Your task to perform on an android device: Open settings Image 0: 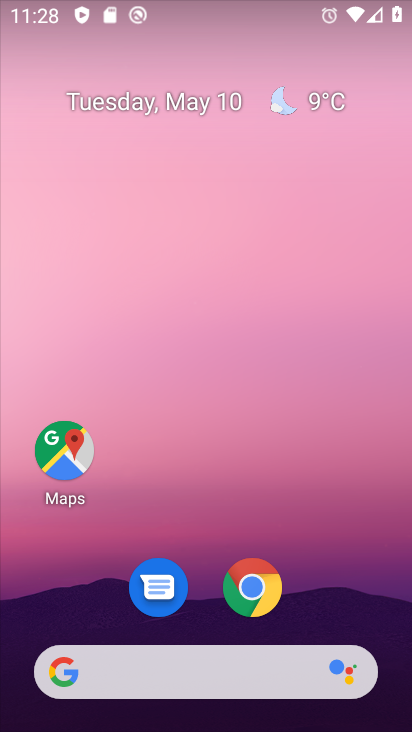
Step 0: drag from (347, 616) to (351, 1)
Your task to perform on an android device: Open settings Image 1: 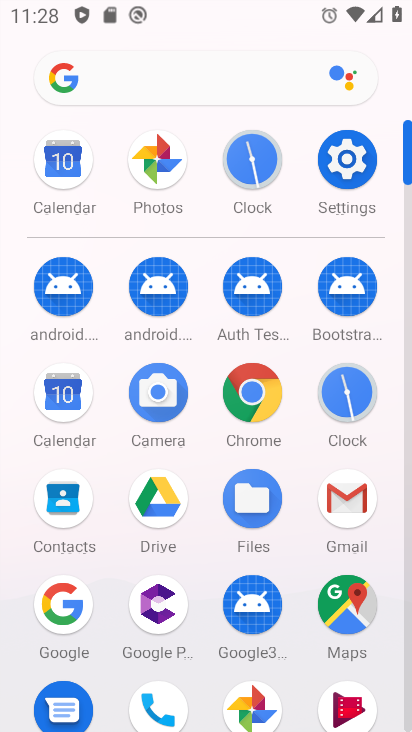
Step 1: click (345, 166)
Your task to perform on an android device: Open settings Image 2: 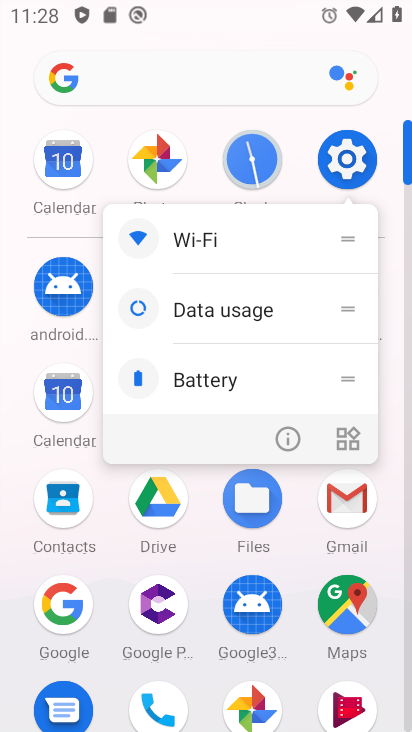
Step 2: click (351, 158)
Your task to perform on an android device: Open settings Image 3: 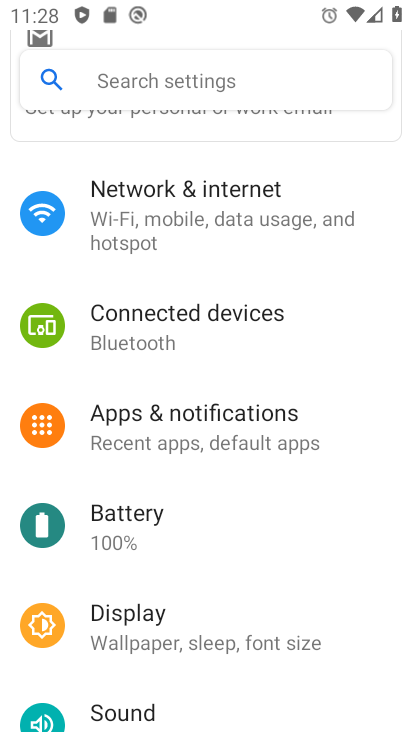
Step 3: task complete